Your task to perform on an android device: Toggle the flashlight Image 0: 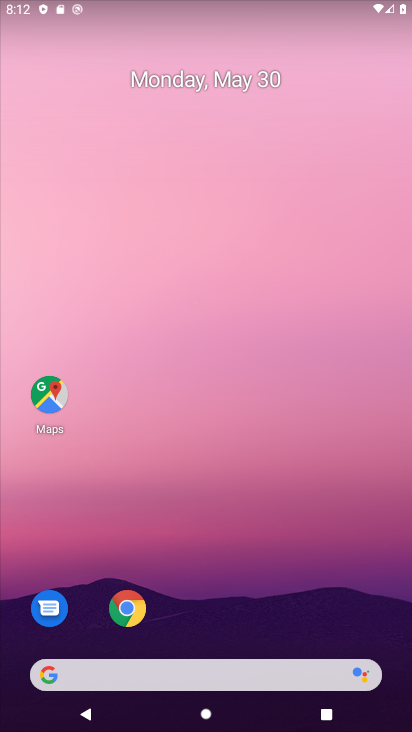
Step 0: drag from (386, 707) to (380, 177)
Your task to perform on an android device: Toggle the flashlight Image 1: 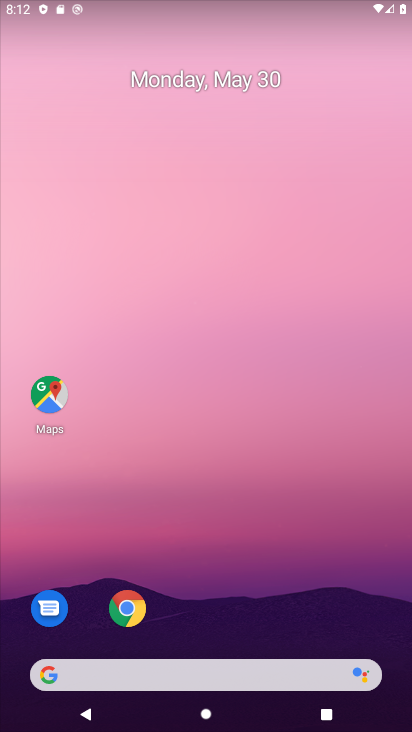
Step 1: drag from (389, 711) to (374, 154)
Your task to perform on an android device: Toggle the flashlight Image 2: 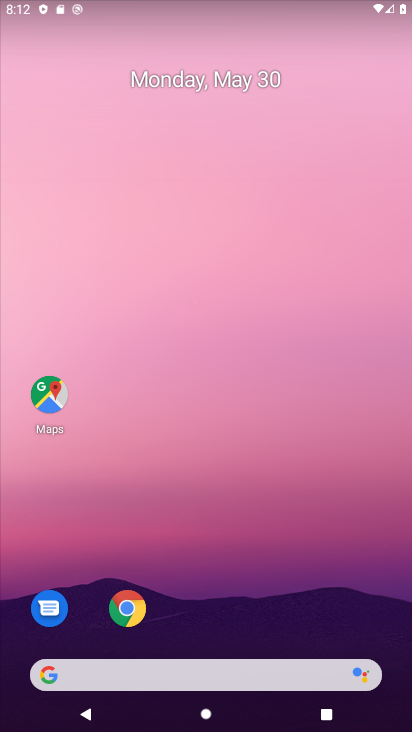
Step 2: drag from (393, 683) to (341, 2)
Your task to perform on an android device: Toggle the flashlight Image 3: 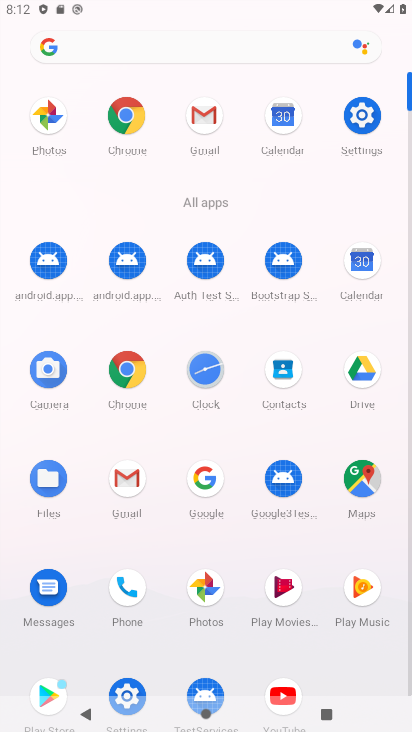
Step 3: click (350, 125)
Your task to perform on an android device: Toggle the flashlight Image 4: 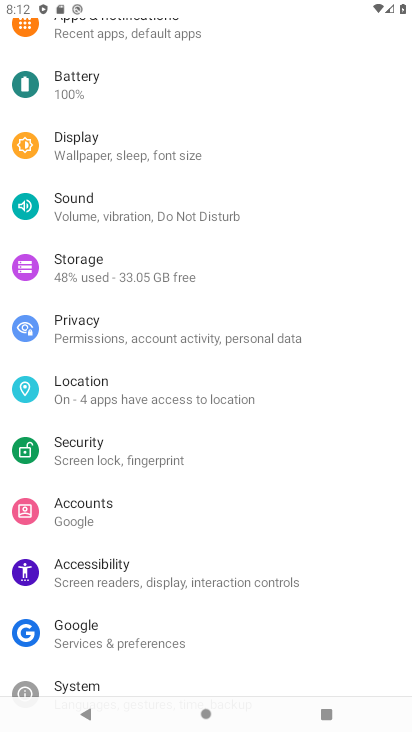
Step 4: click (89, 150)
Your task to perform on an android device: Toggle the flashlight Image 5: 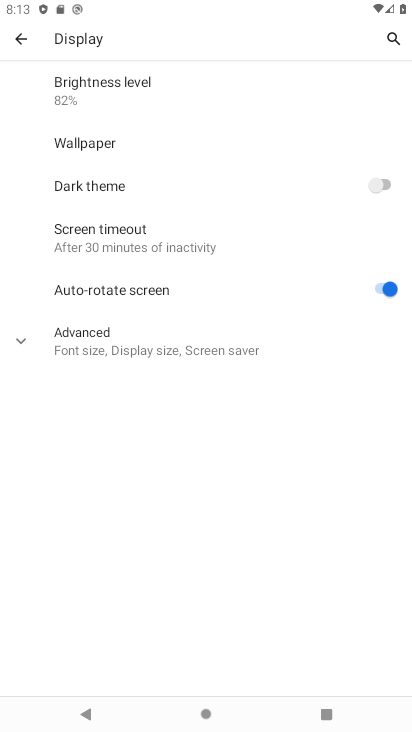
Step 5: task complete